Your task to perform on an android device: Open Google Chrome Image 0: 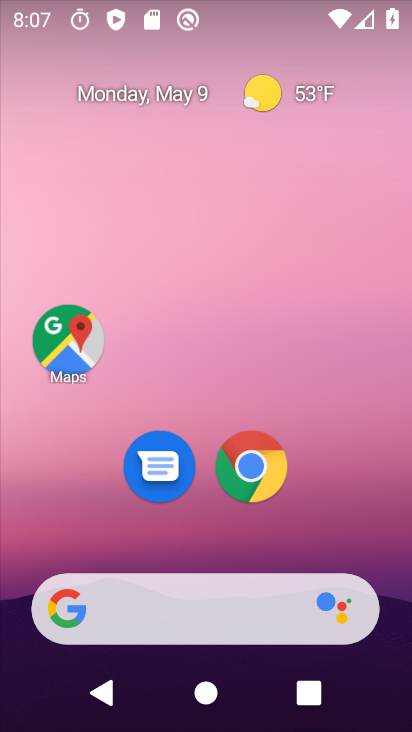
Step 0: click (246, 469)
Your task to perform on an android device: Open Google Chrome Image 1: 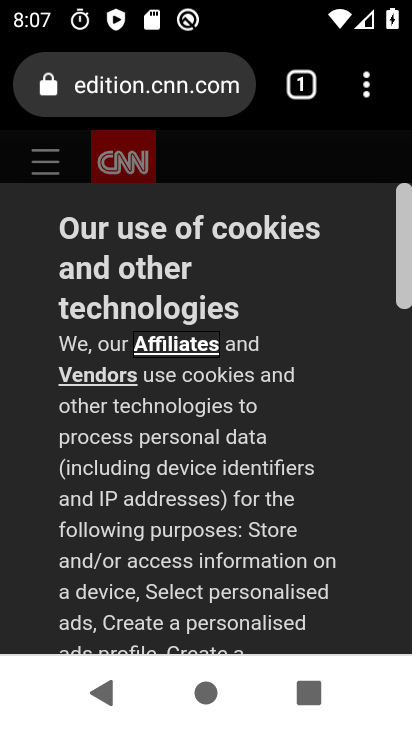
Step 1: task complete